Your task to perform on an android device: change notifications settings Image 0: 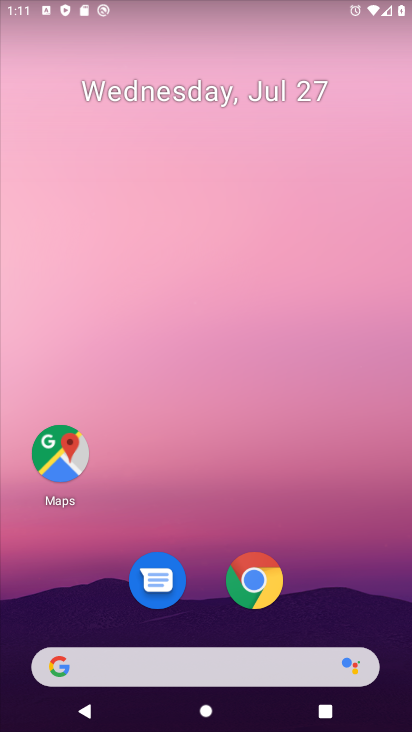
Step 0: drag from (272, 697) to (262, 96)
Your task to perform on an android device: change notifications settings Image 1: 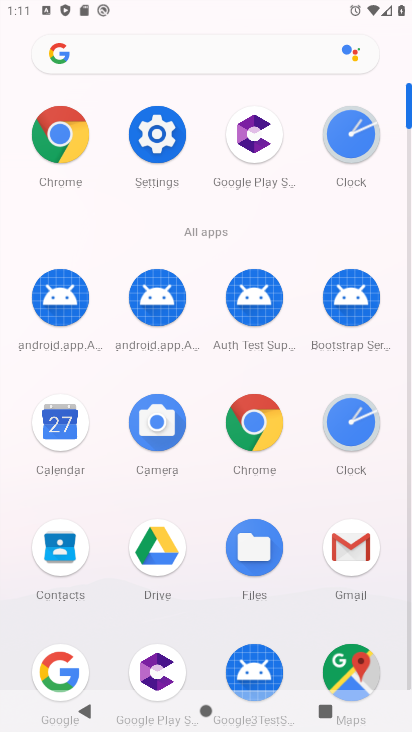
Step 1: click (155, 154)
Your task to perform on an android device: change notifications settings Image 2: 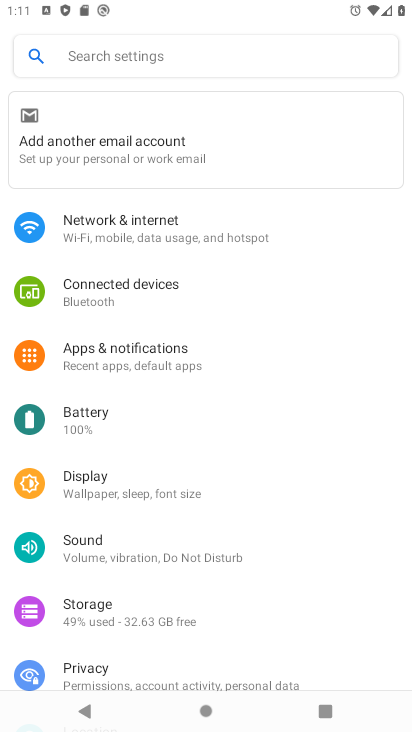
Step 2: click (147, 55)
Your task to perform on an android device: change notifications settings Image 3: 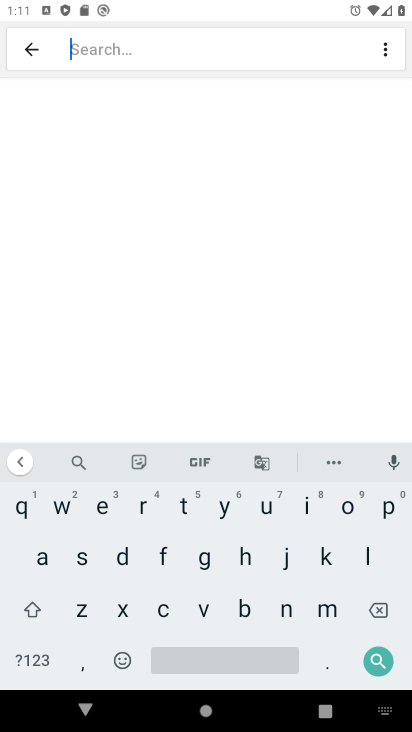
Step 3: click (279, 616)
Your task to perform on an android device: change notifications settings Image 4: 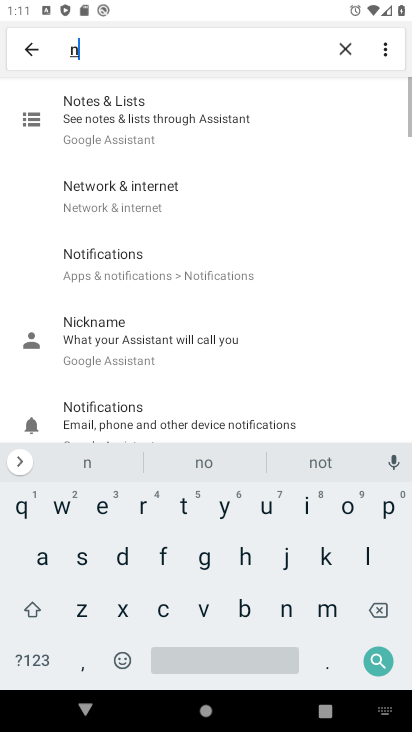
Step 4: click (346, 505)
Your task to perform on an android device: change notifications settings Image 5: 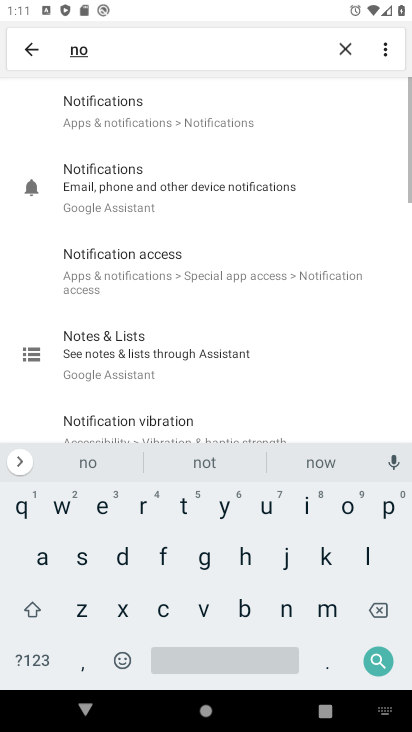
Step 5: click (124, 107)
Your task to perform on an android device: change notifications settings Image 6: 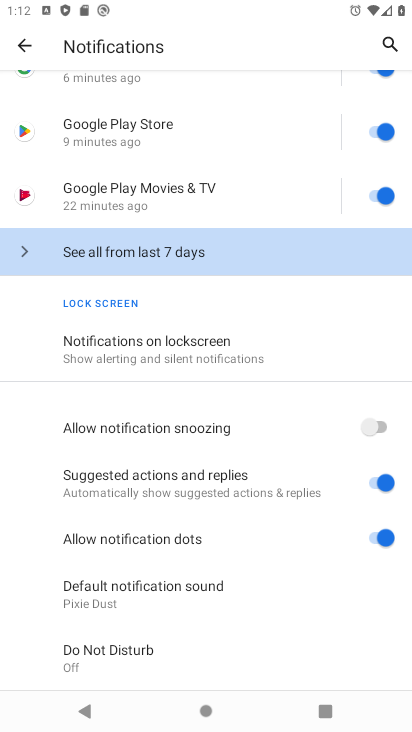
Step 6: click (198, 348)
Your task to perform on an android device: change notifications settings Image 7: 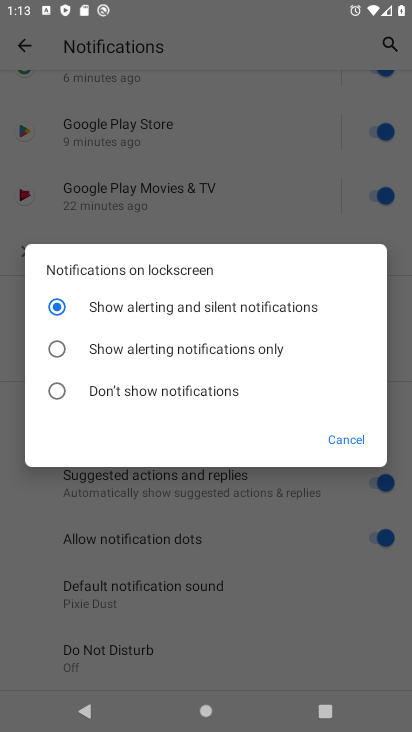
Step 7: task complete